Your task to perform on an android device: Go to eBay Image 0: 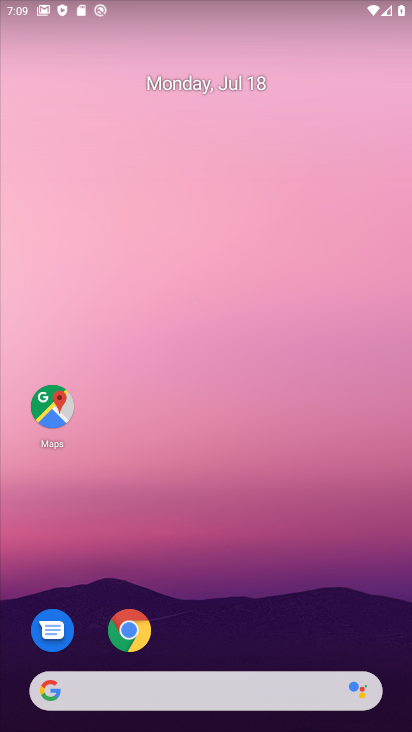
Step 0: drag from (192, 514) to (190, 73)
Your task to perform on an android device: Go to eBay Image 1: 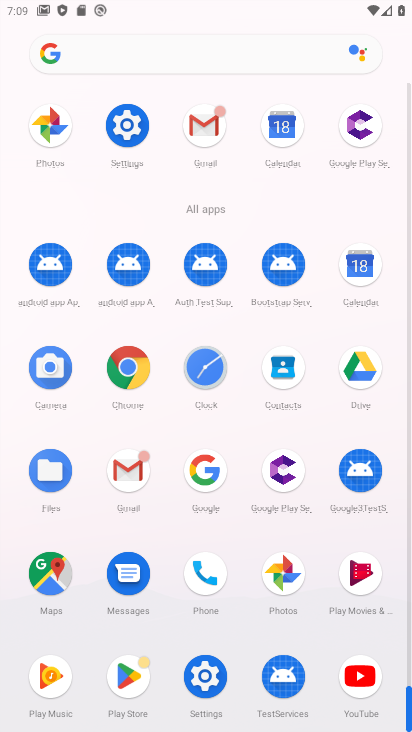
Step 1: click (122, 374)
Your task to perform on an android device: Go to eBay Image 2: 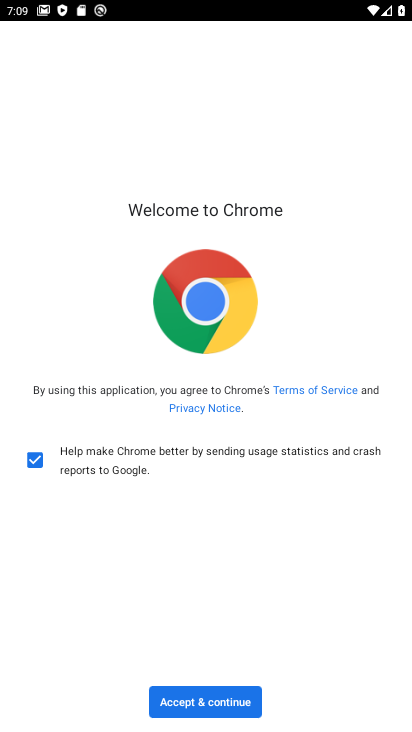
Step 2: click (165, 695)
Your task to perform on an android device: Go to eBay Image 3: 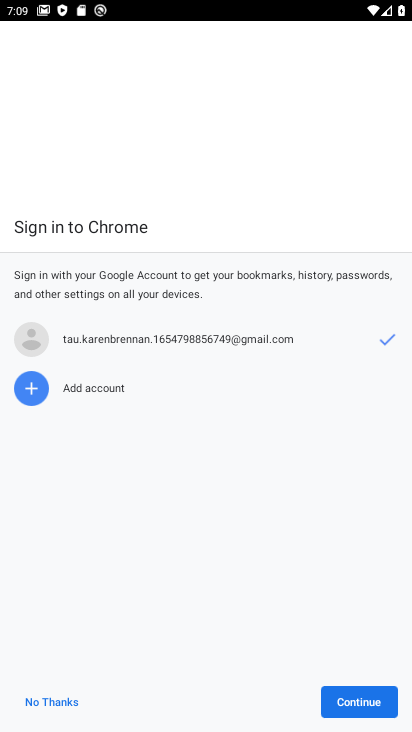
Step 3: click (58, 709)
Your task to perform on an android device: Go to eBay Image 4: 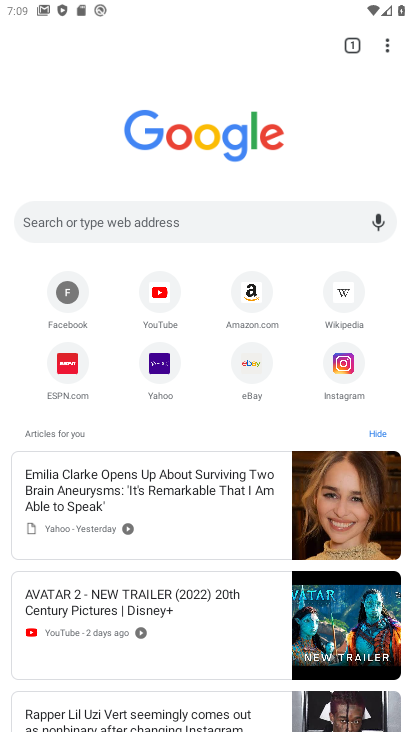
Step 4: click (246, 357)
Your task to perform on an android device: Go to eBay Image 5: 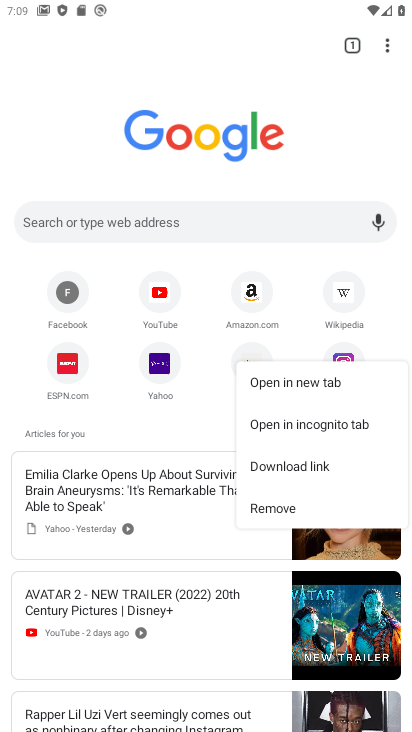
Step 5: click (186, 427)
Your task to perform on an android device: Go to eBay Image 6: 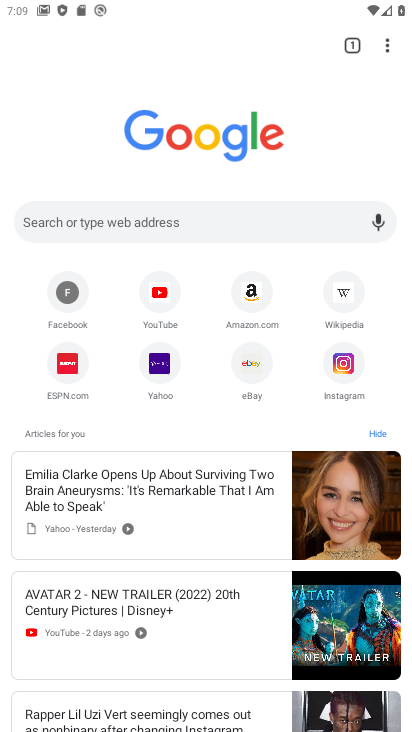
Step 6: click (253, 379)
Your task to perform on an android device: Go to eBay Image 7: 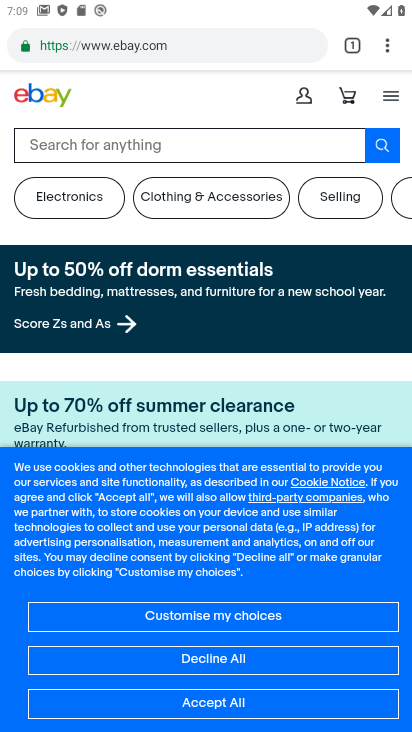
Step 7: task complete